Your task to perform on an android device: check google app version Image 0: 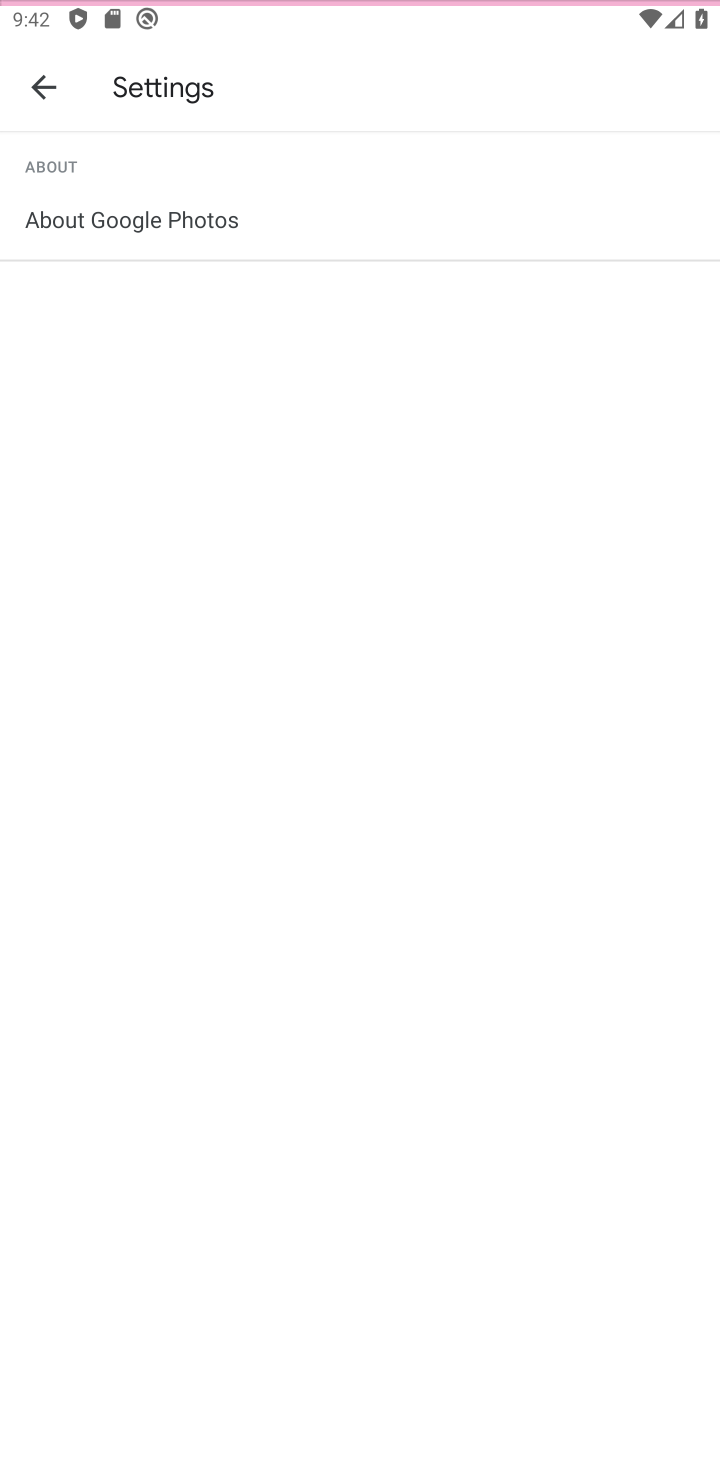
Step 0: press home button
Your task to perform on an android device: check google app version Image 1: 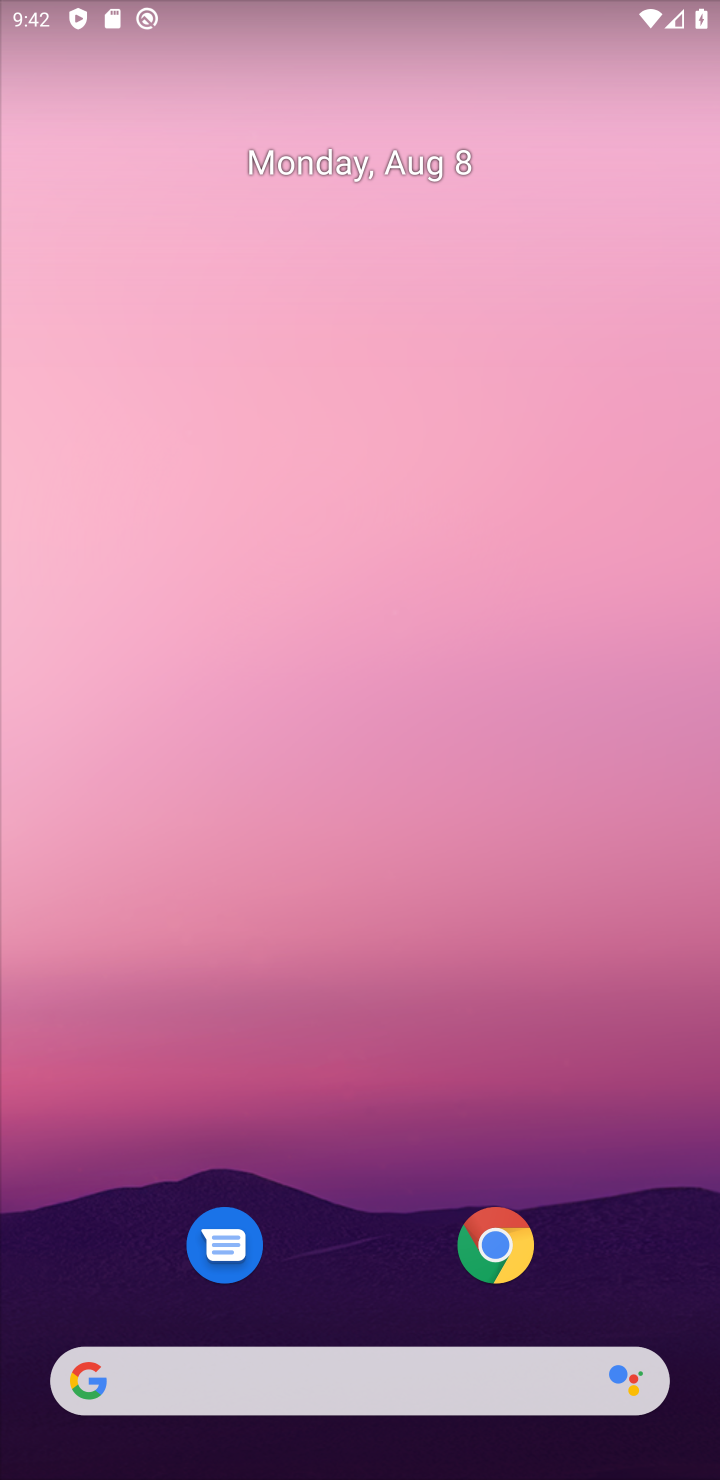
Step 1: drag from (366, 1196) to (325, 488)
Your task to perform on an android device: check google app version Image 2: 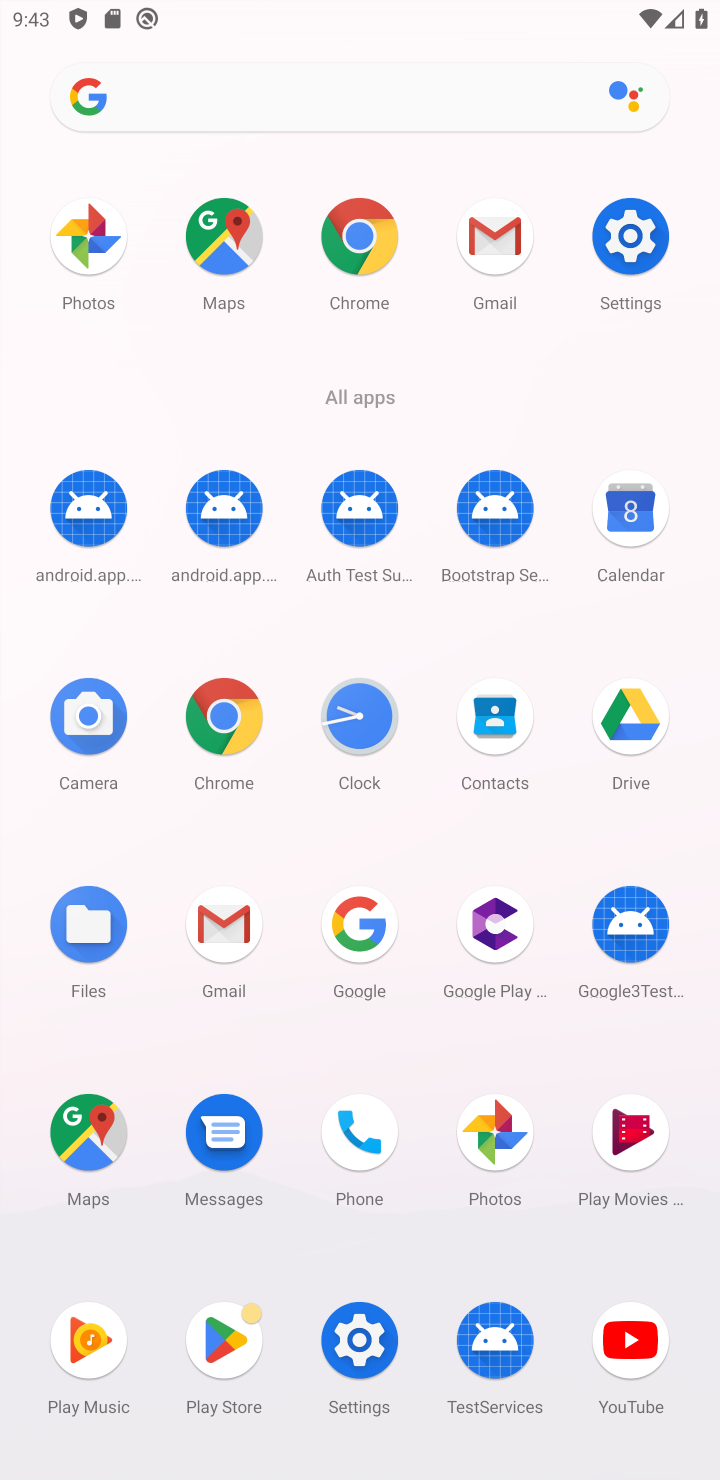
Step 2: click (351, 951)
Your task to perform on an android device: check google app version Image 3: 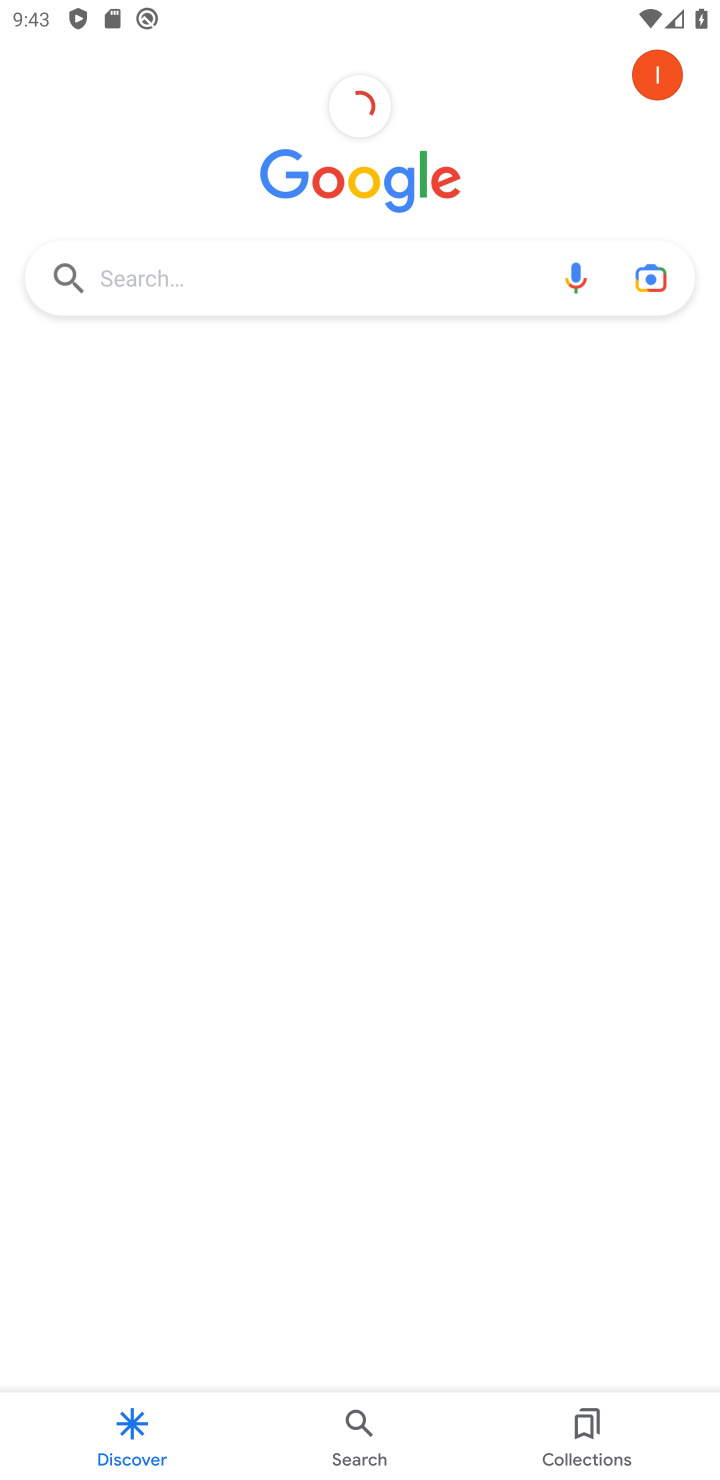
Step 3: click (654, 91)
Your task to perform on an android device: check google app version Image 4: 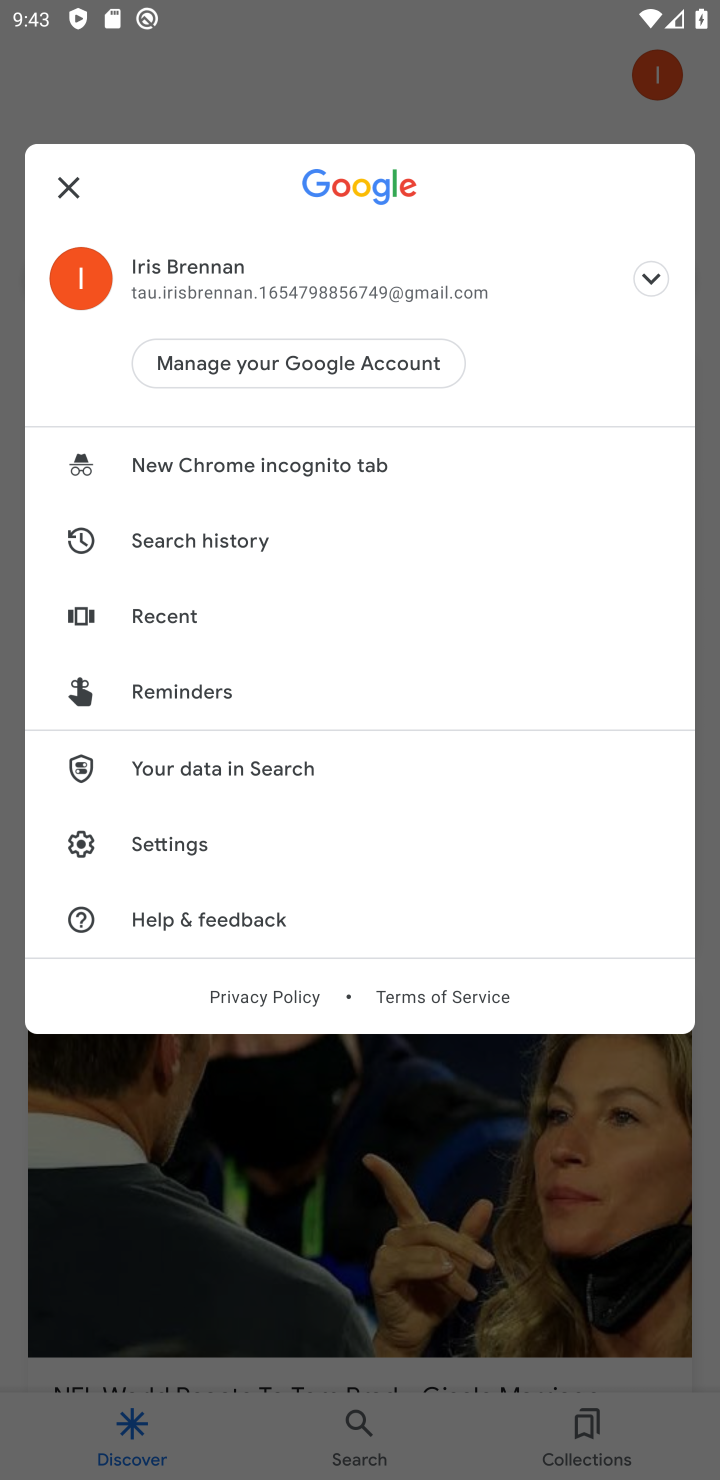
Step 4: click (173, 833)
Your task to perform on an android device: check google app version Image 5: 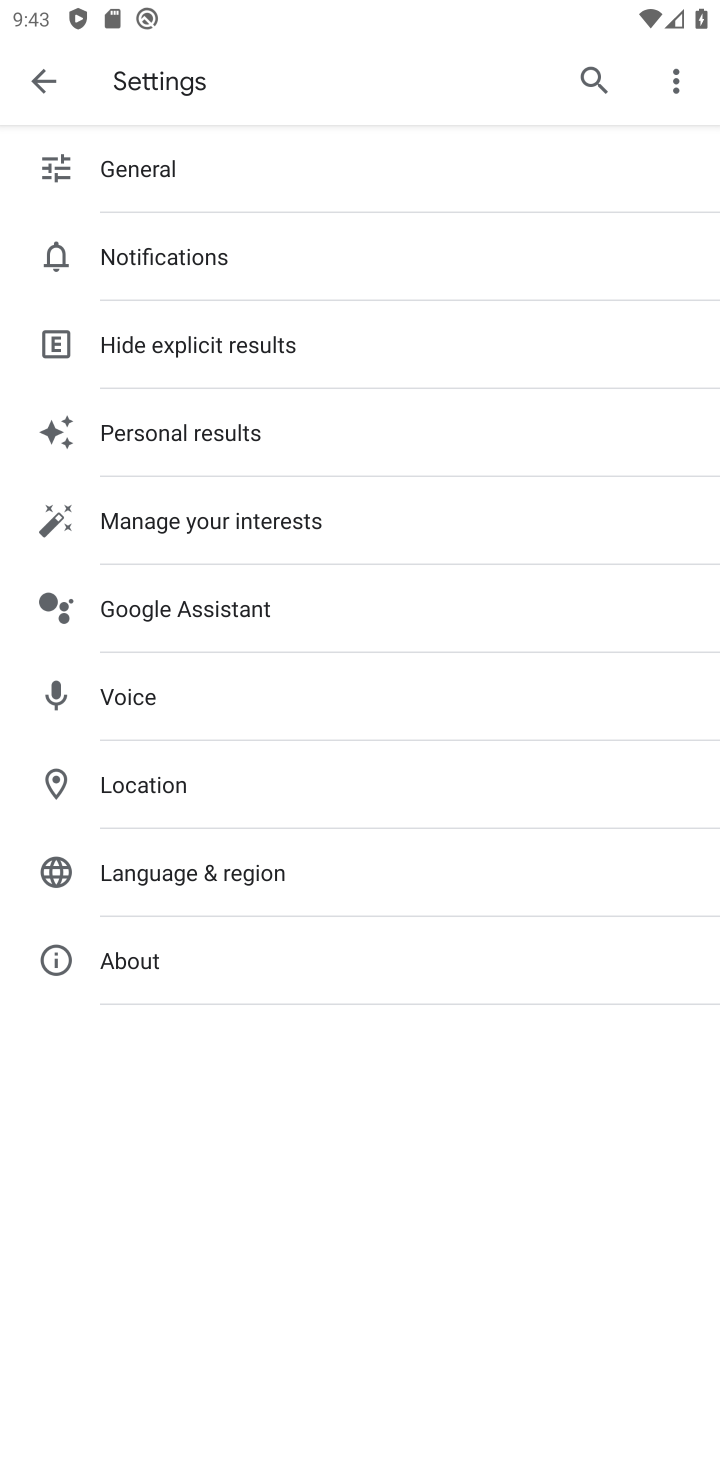
Step 5: click (180, 953)
Your task to perform on an android device: check google app version Image 6: 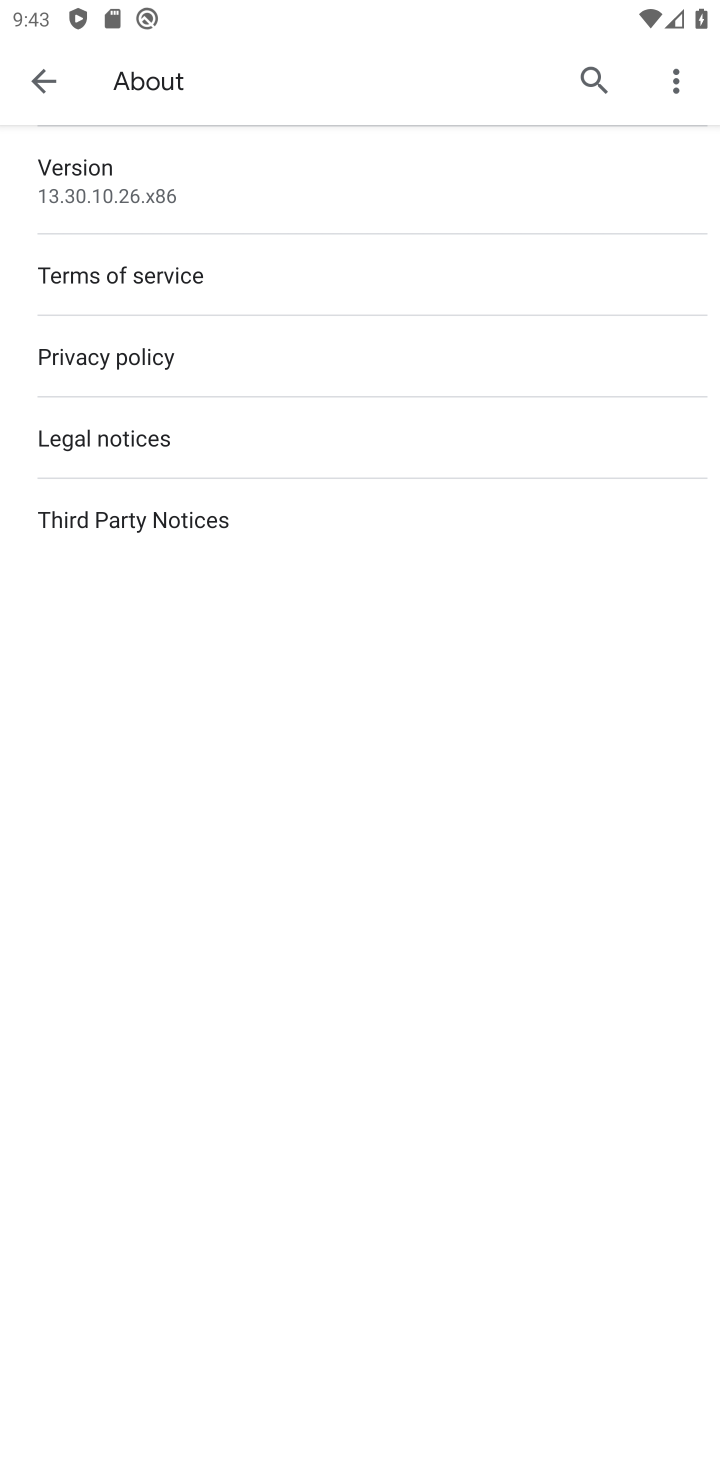
Step 6: task complete